Your task to perform on an android device: Search for pizza restaurants on Maps Image 0: 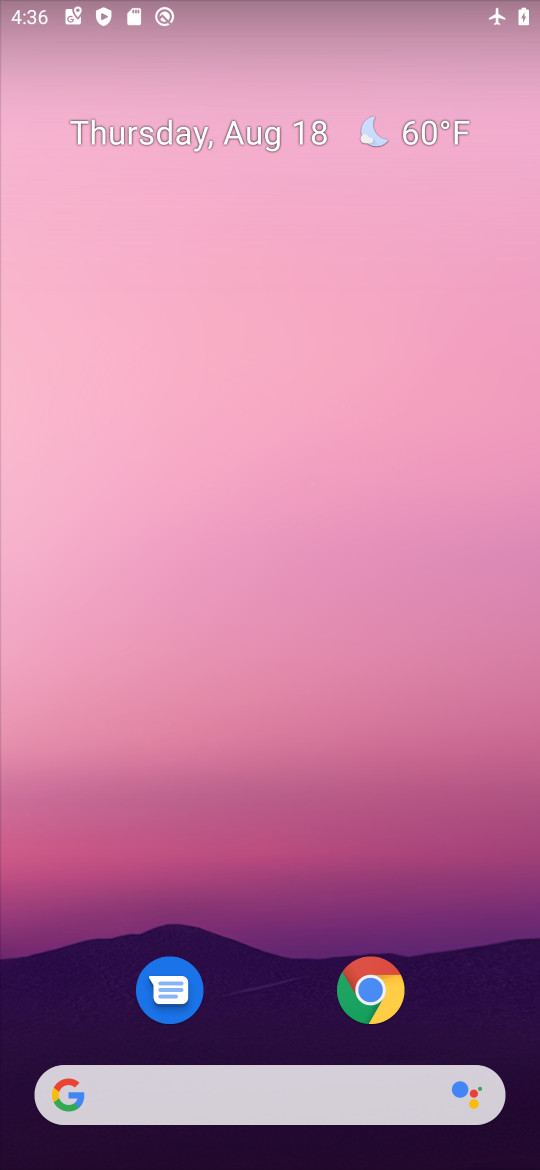
Step 0: drag from (272, 846) to (330, 240)
Your task to perform on an android device: Search for pizza restaurants on Maps Image 1: 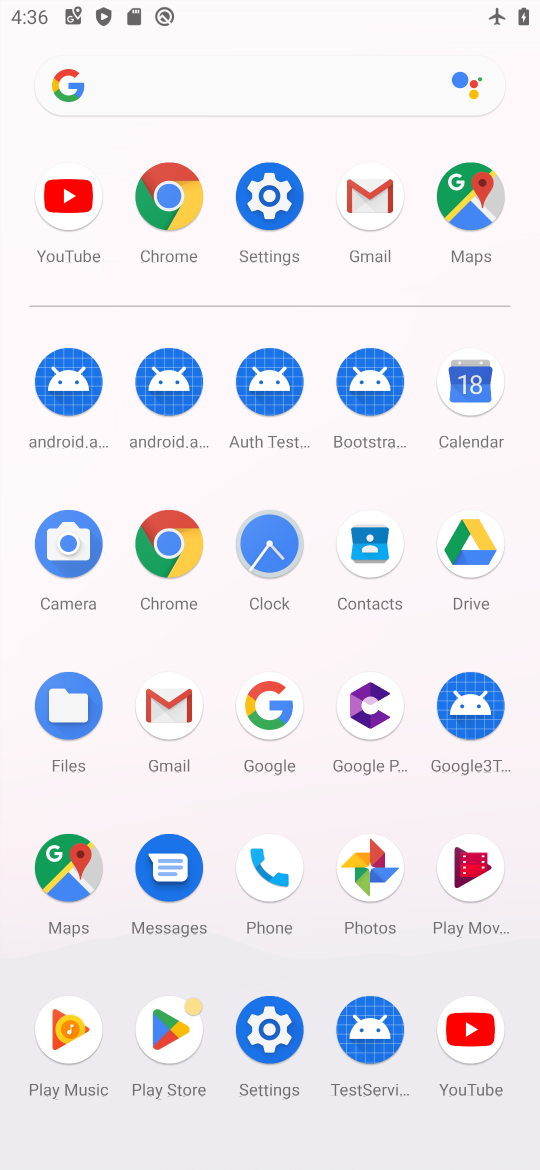
Step 1: click (76, 874)
Your task to perform on an android device: Search for pizza restaurants on Maps Image 2: 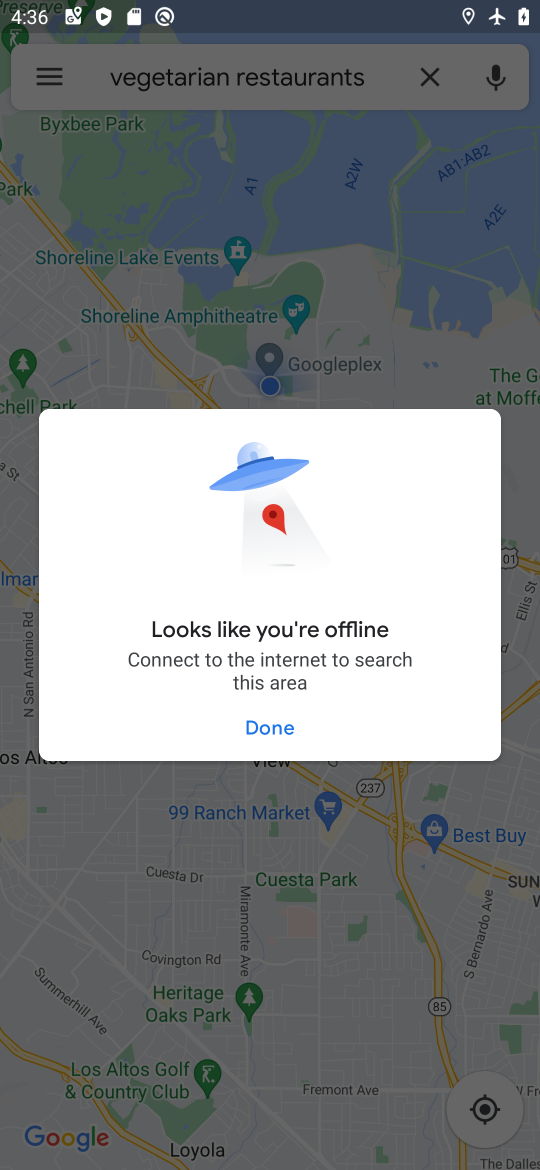
Step 2: click (269, 723)
Your task to perform on an android device: Search for pizza restaurants on Maps Image 3: 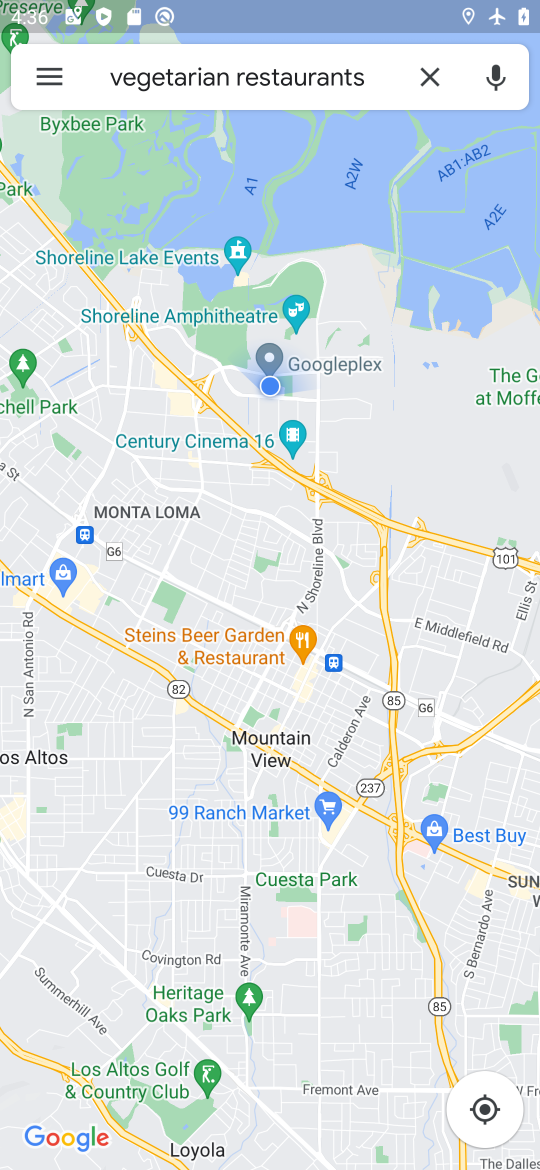
Step 3: click (418, 81)
Your task to perform on an android device: Search for pizza restaurants on Maps Image 4: 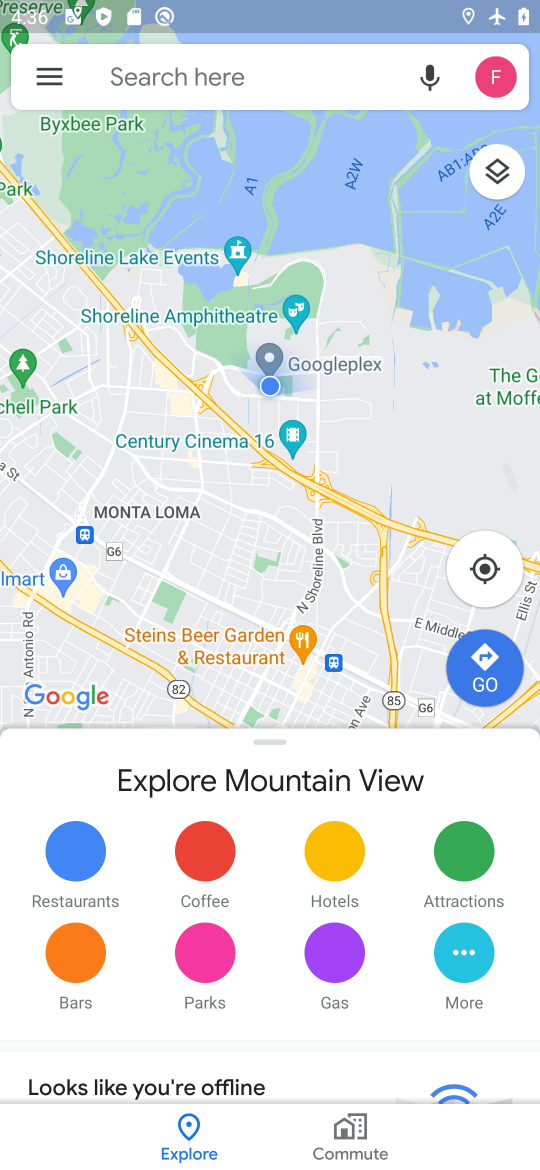
Step 4: click (379, 71)
Your task to perform on an android device: Search for pizza restaurants on Maps Image 5: 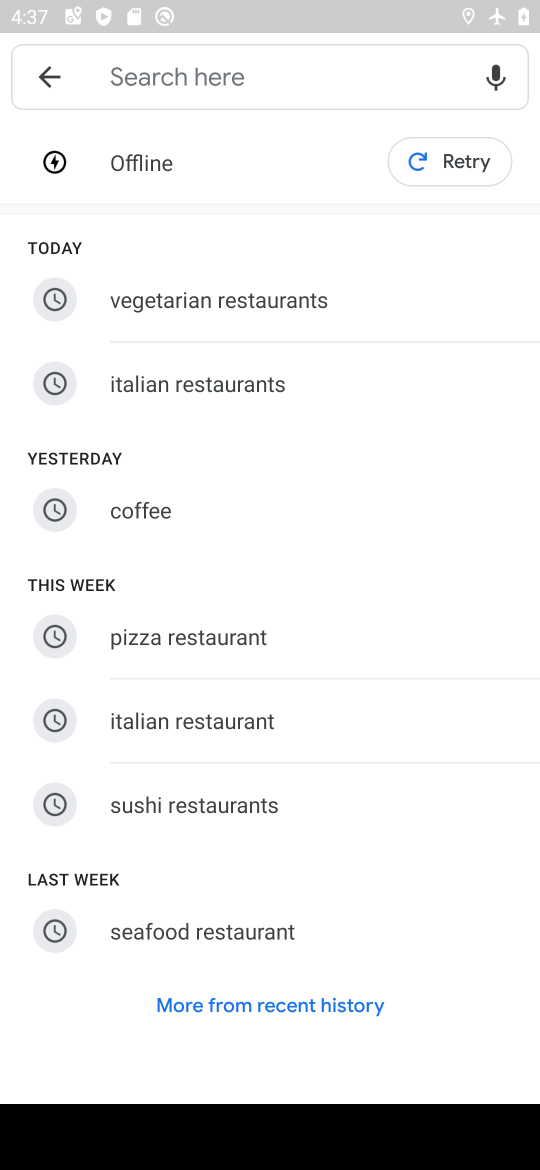
Step 5: type "pinna restaurants"
Your task to perform on an android device: Search for pizza restaurants on Maps Image 6: 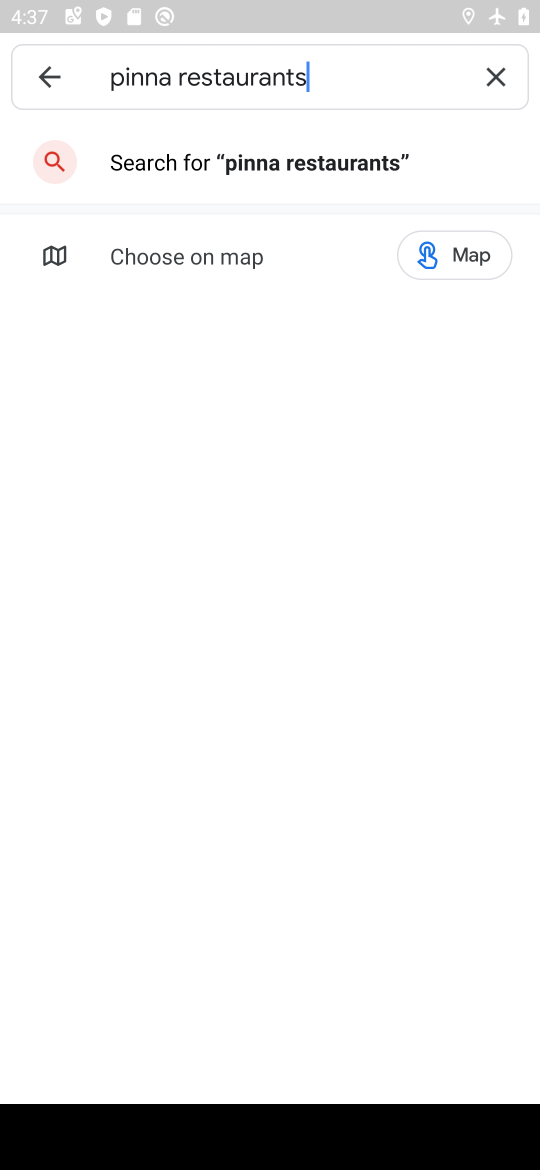
Step 6: click (494, 73)
Your task to perform on an android device: Search for pizza restaurants on Maps Image 7: 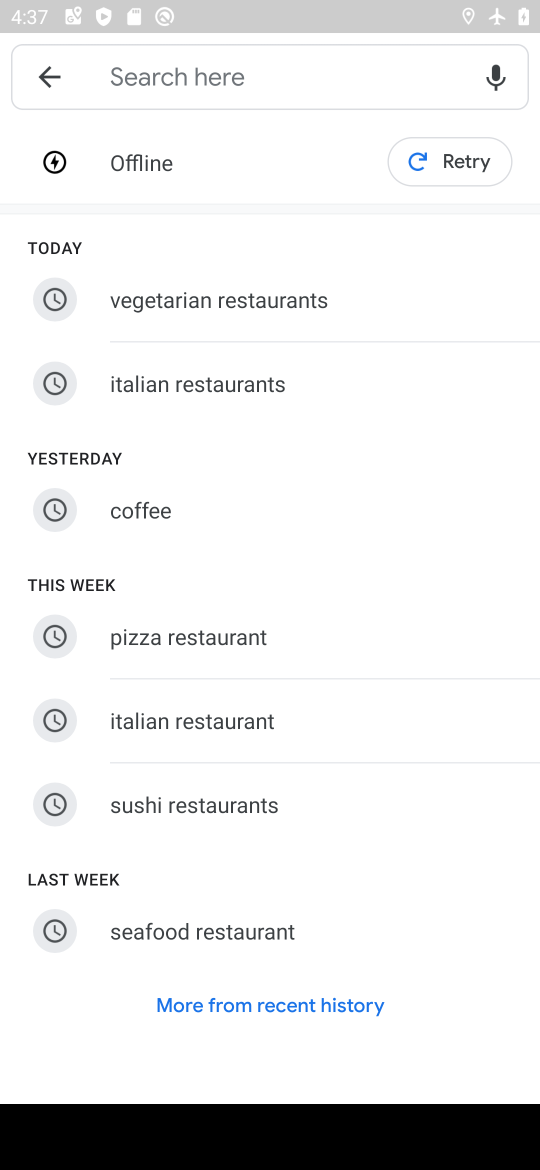
Step 7: type "pizza restaurants"
Your task to perform on an android device: Search for pizza restaurants on Maps Image 8: 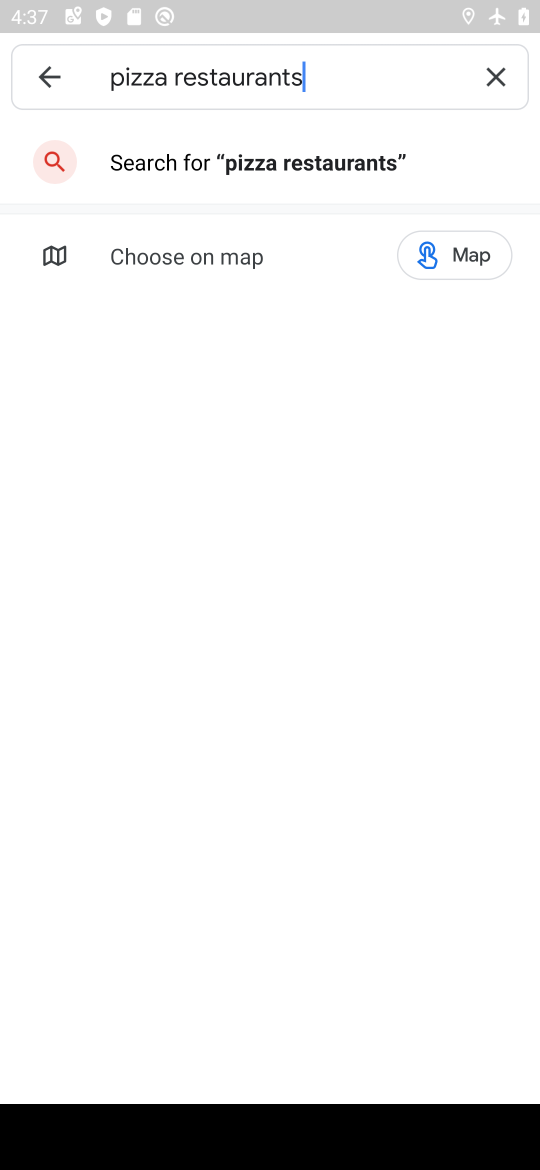
Step 8: click (362, 156)
Your task to perform on an android device: Search for pizza restaurants on Maps Image 9: 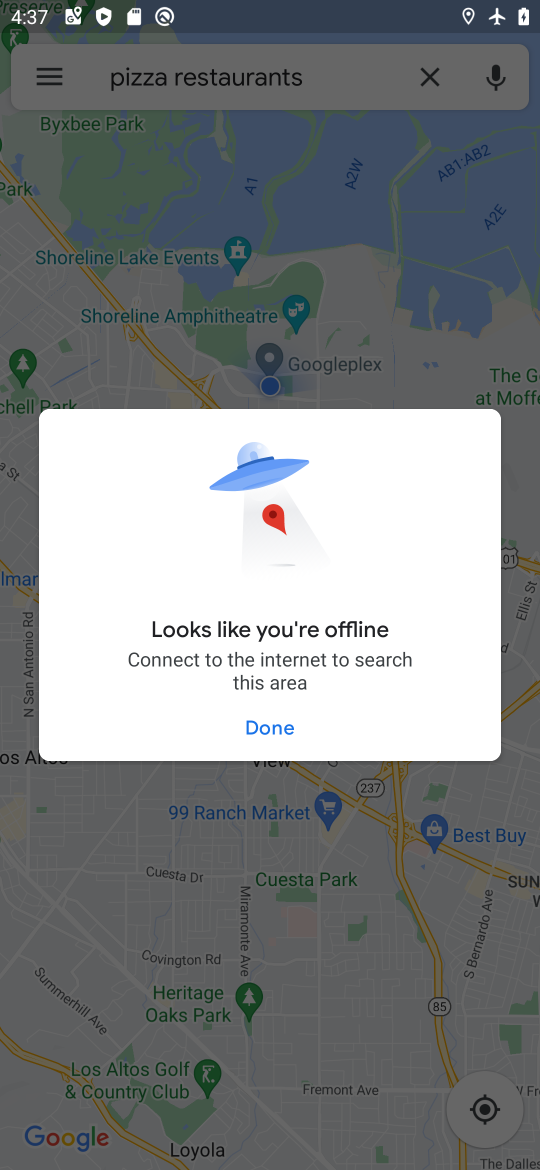
Step 9: task complete